Your task to perform on an android device: Find coffee shops on Maps Image 0: 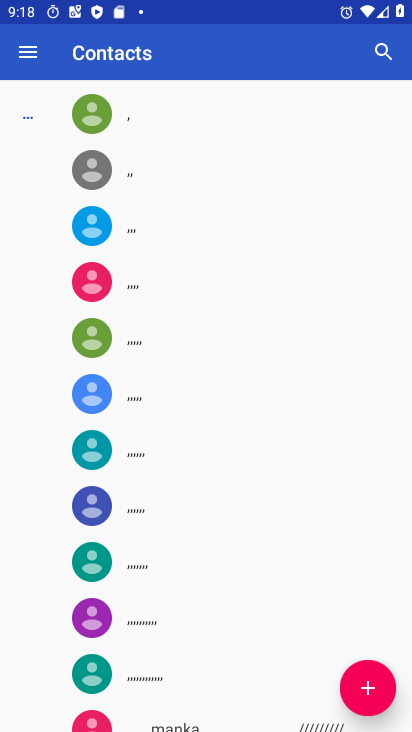
Step 0: press home button
Your task to perform on an android device: Find coffee shops on Maps Image 1: 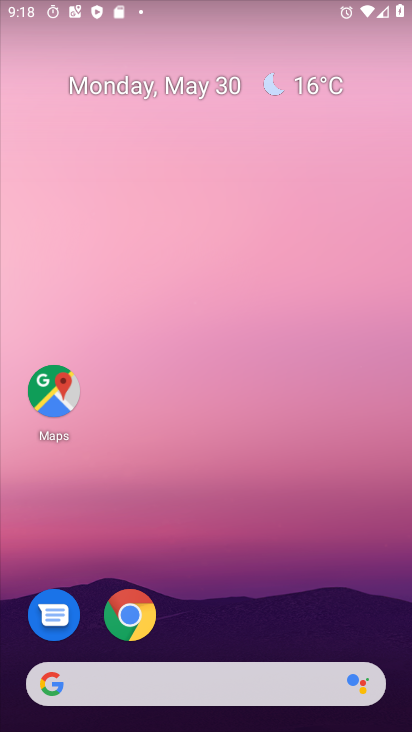
Step 1: drag from (310, 580) to (308, 90)
Your task to perform on an android device: Find coffee shops on Maps Image 2: 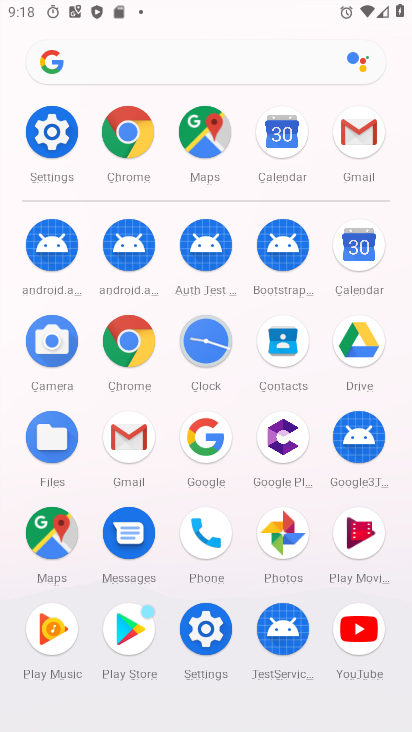
Step 2: click (227, 137)
Your task to perform on an android device: Find coffee shops on Maps Image 3: 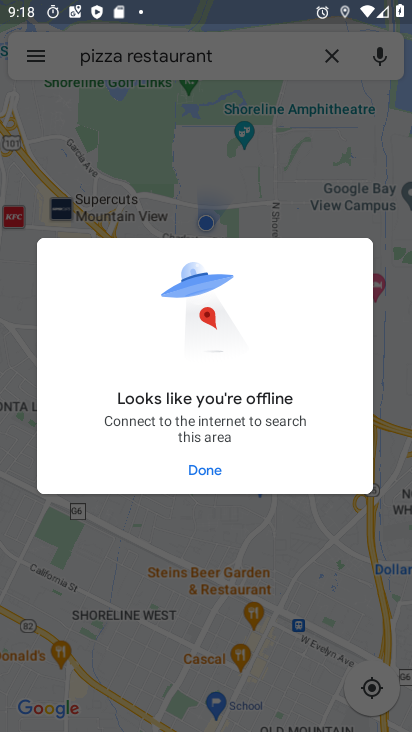
Step 3: press back button
Your task to perform on an android device: Find coffee shops on Maps Image 4: 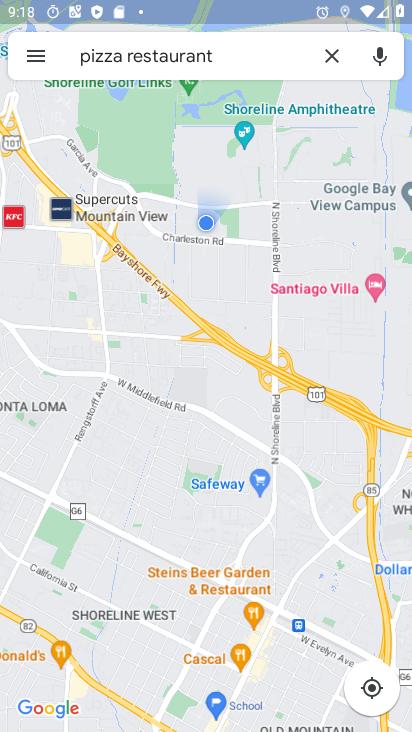
Step 4: click (330, 58)
Your task to perform on an android device: Find coffee shops on Maps Image 5: 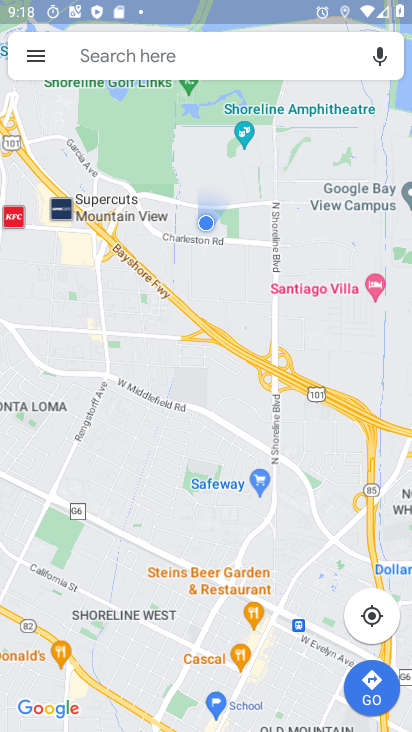
Step 5: click (195, 75)
Your task to perform on an android device: Find coffee shops on Maps Image 6: 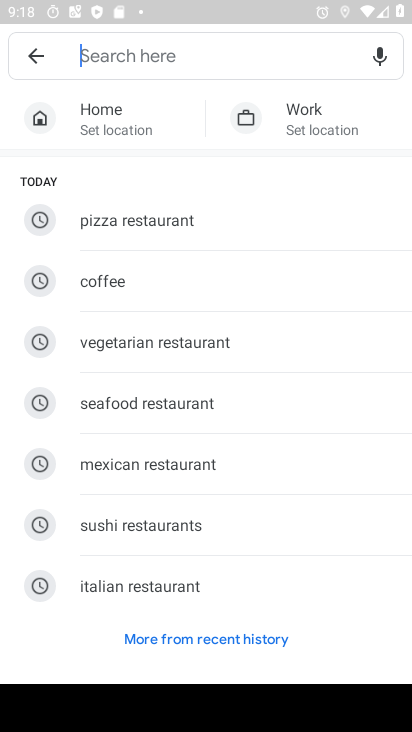
Step 6: click (137, 288)
Your task to perform on an android device: Find coffee shops on Maps Image 7: 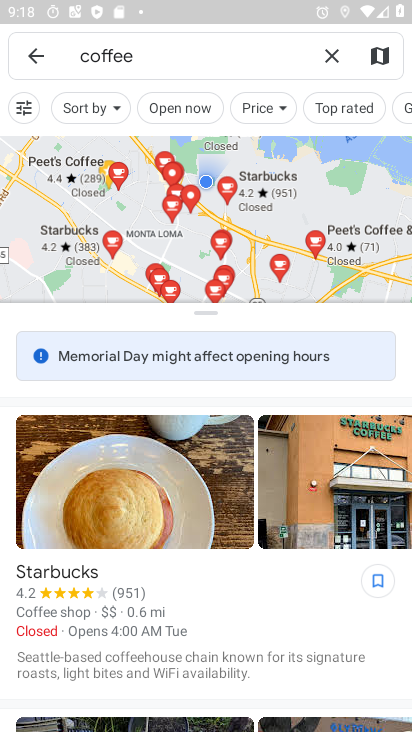
Step 7: task complete